Your task to perform on an android device: change notifications settings Image 0: 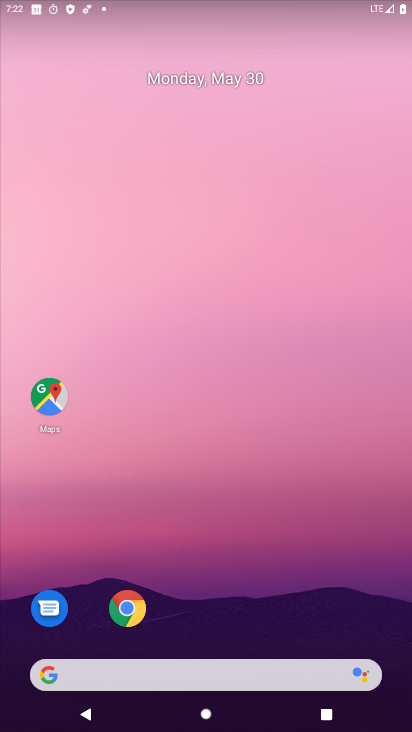
Step 0: drag from (232, 579) to (287, 236)
Your task to perform on an android device: change notifications settings Image 1: 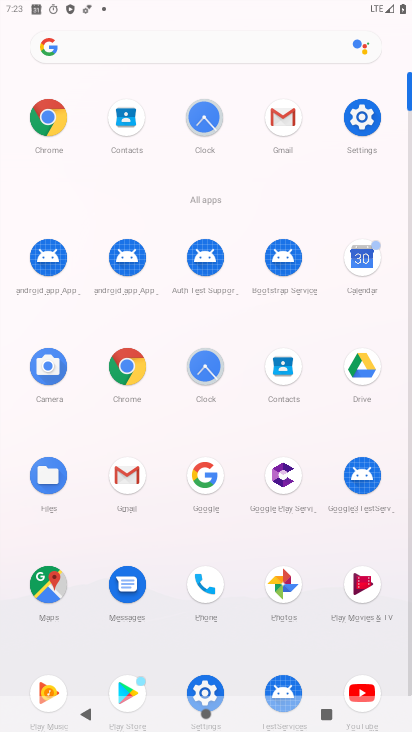
Step 1: click (209, 686)
Your task to perform on an android device: change notifications settings Image 2: 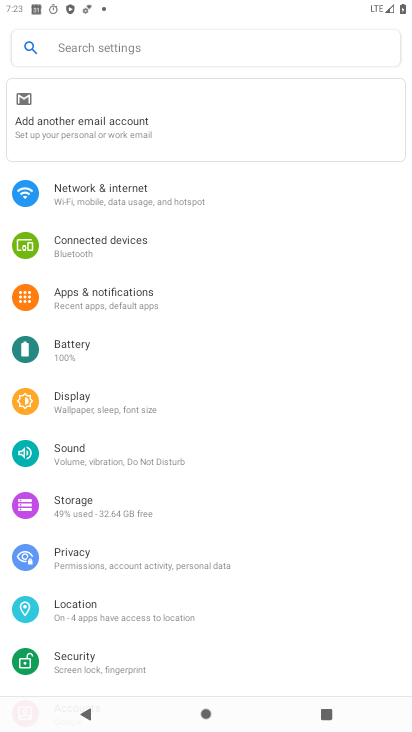
Step 2: click (118, 313)
Your task to perform on an android device: change notifications settings Image 3: 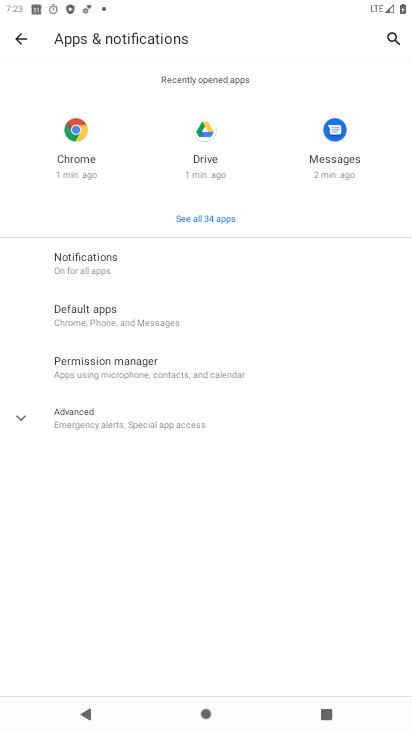
Step 3: click (133, 271)
Your task to perform on an android device: change notifications settings Image 4: 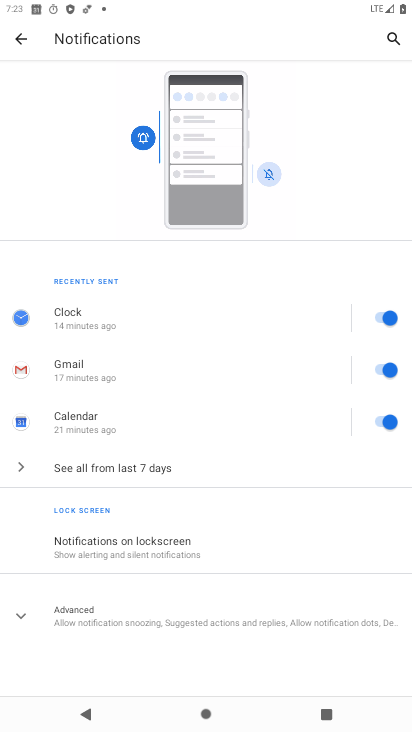
Step 4: click (390, 322)
Your task to perform on an android device: change notifications settings Image 5: 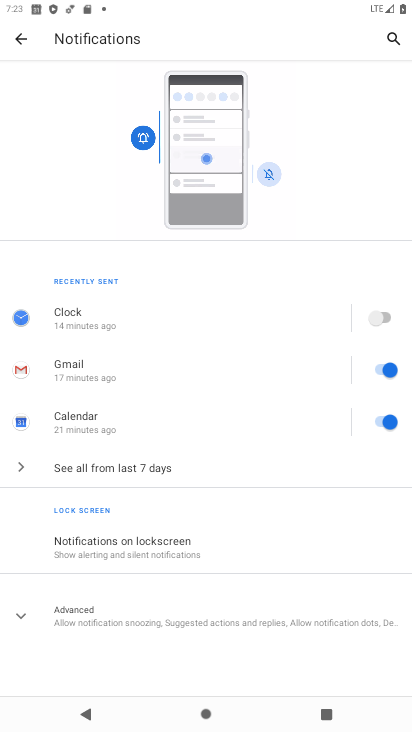
Step 5: task complete